Your task to perform on an android device: Open Chrome and go to settings Image 0: 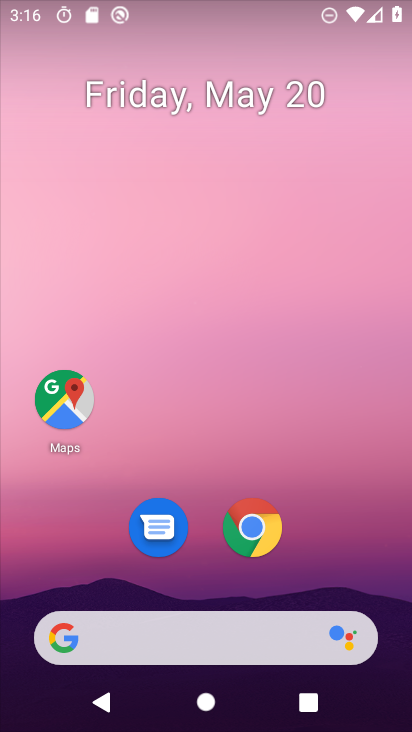
Step 0: click (260, 523)
Your task to perform on an android device: Open Chrome and go to settings Image 1: 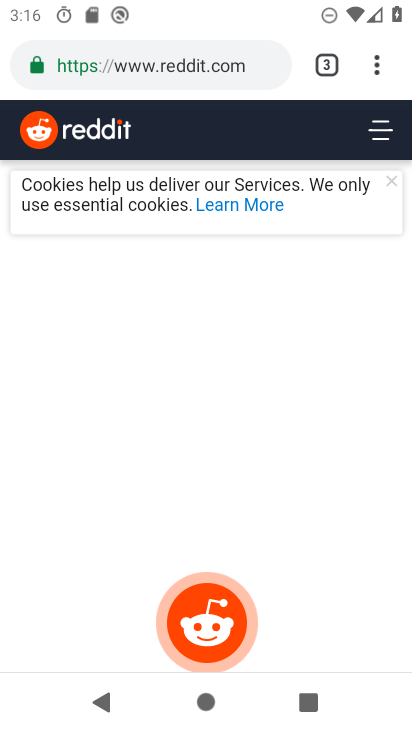
Step 1: task complete